Your task to perform on an android device: see creations saved in the google photos Image 0: 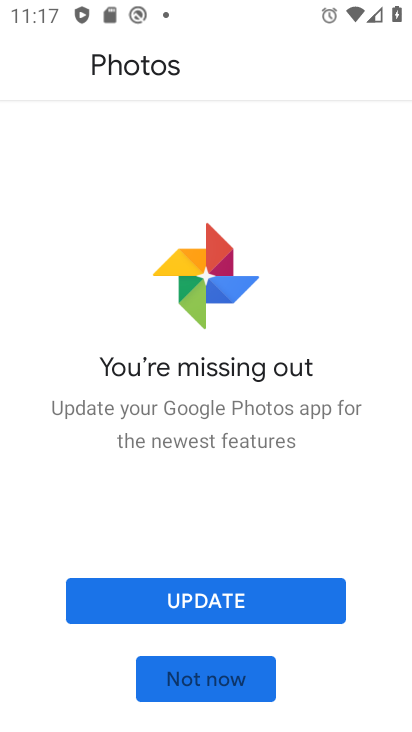
Step 0: press home button
Your task to perform on an android device: see creations saved in the google photos Image 1: 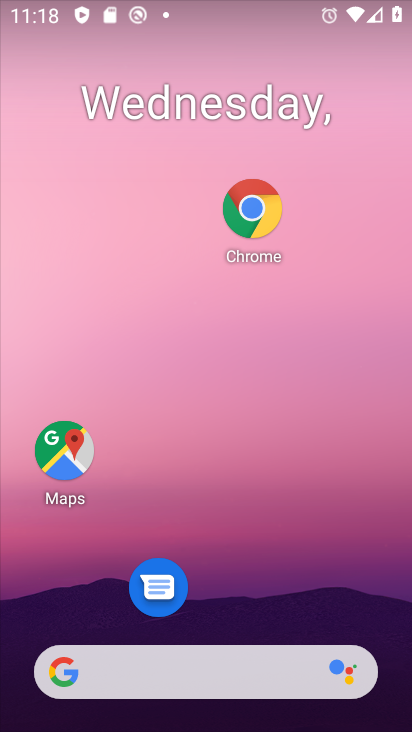
Step 1: drag from (246, 618) to (231, 207)
Your task to perform on an android device: see creations saved in the google photos Image 2: 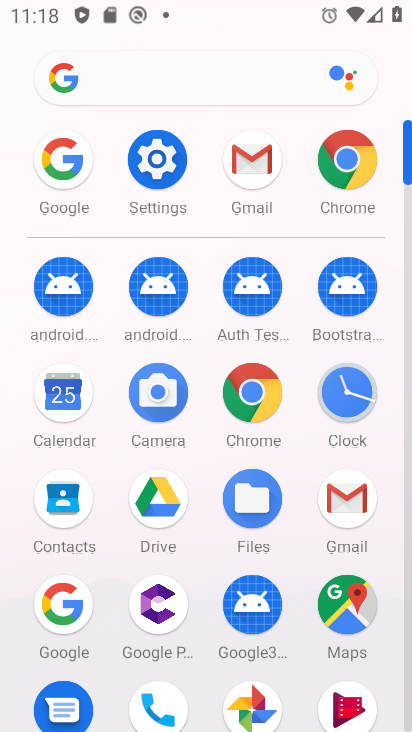
Step 2: click (251, 692)
Your task to perform on an android device: see creations saved in the google photos Image 3: 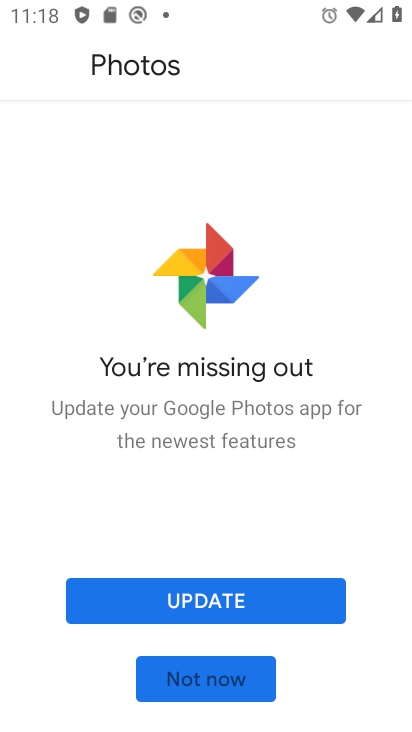
Step 3: click (202, 587)
Your task to perform on an android device: see creations saved in the google photos Image 4: 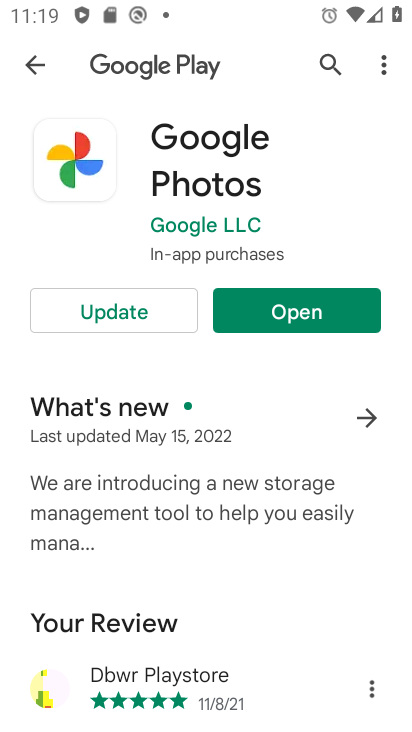
Step 4: click (127, 301)
Your task to perform on an android device: see creations saved in the google photos Image 5: 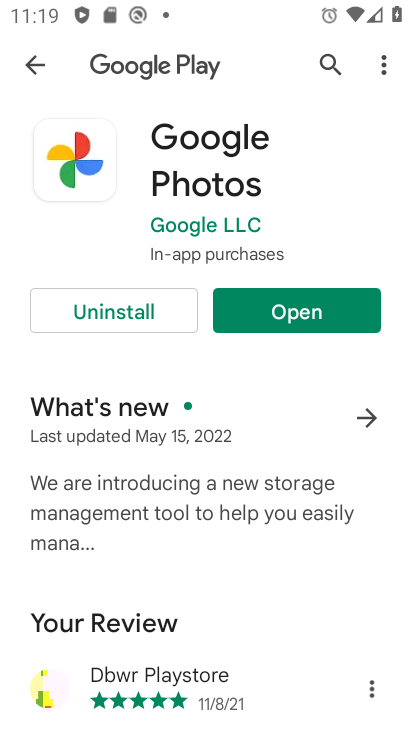
Step 5: click (232, 320)
Your task to perform on an android device: see creations saved in the google photos Image 6: 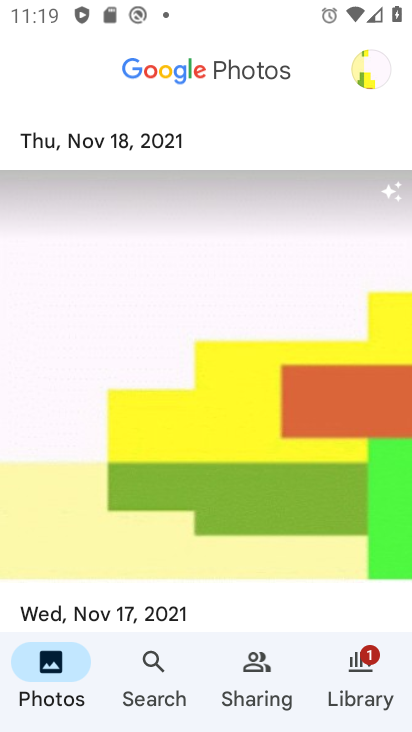
Step 6: click (155, 678)
Your task to perform on an android device: see creations saved in the google photos Image 7: 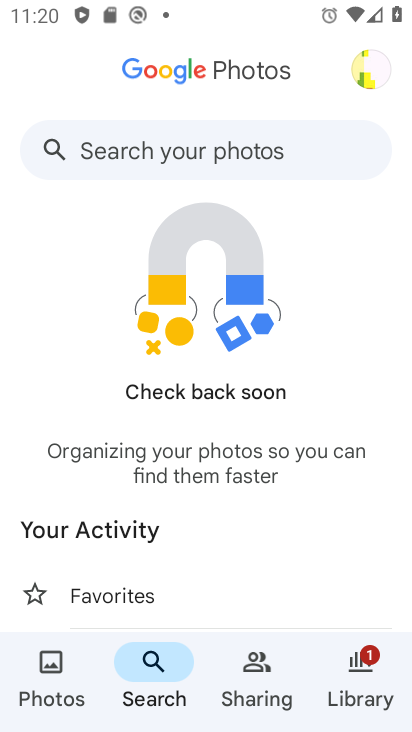
Step 7: click (190, 155)
Your task to perform on an android device: see creations saved in the google photos Image 8: 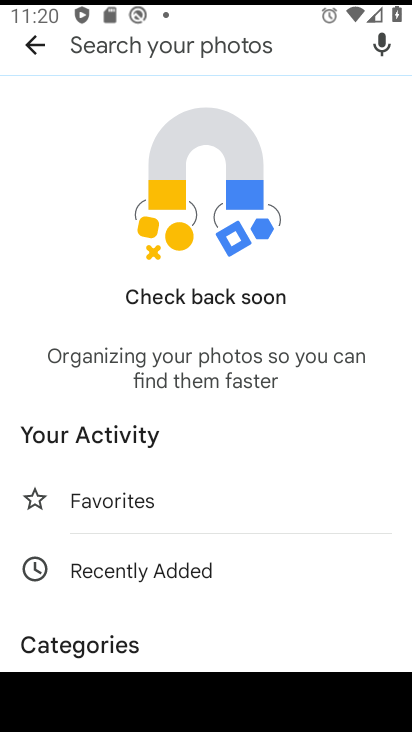
Step 8: drag from (149, 636) to (160, 362)
Your task to perform on an android device: see creations saved in the google photos Image 9: 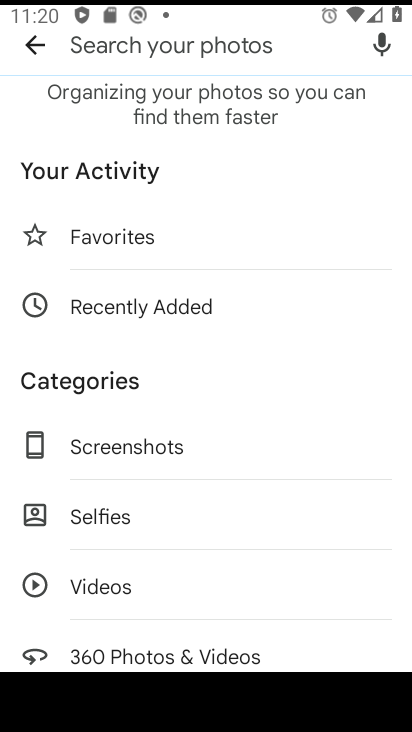
Step 9: drag from (219, 561) to (219, 387)
Your task to perform on an android device: see creations saved in the google photos Image 10: 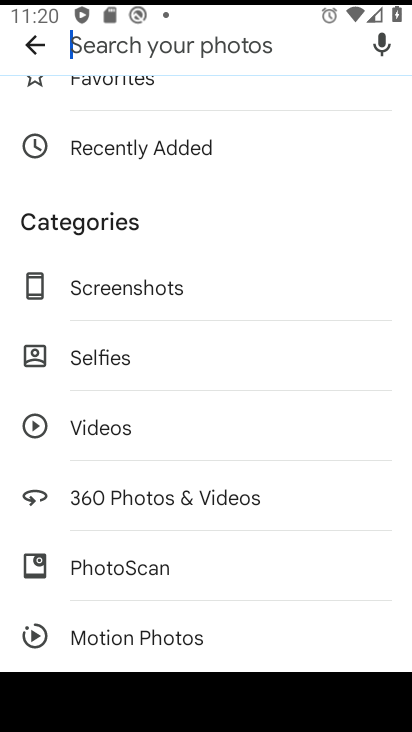
Step 10: drag from (175, 613) to (193, 366)
Your task to perform on an android device: see creations saved in the google photos Image 11: 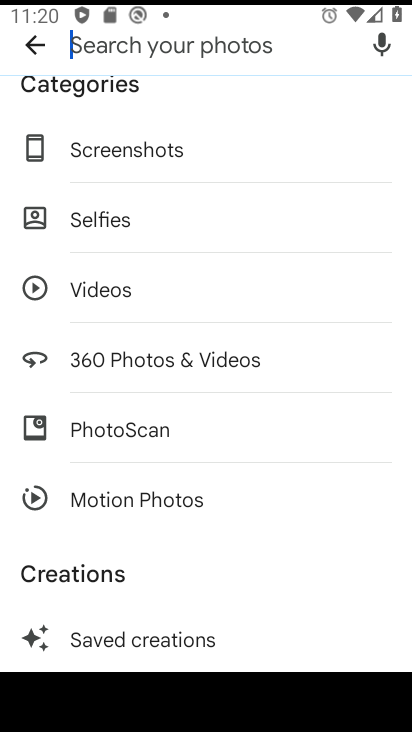
Step 11: click (155, 637)
Your task to perform on an android device: see creations saved in the google photos Image 12: 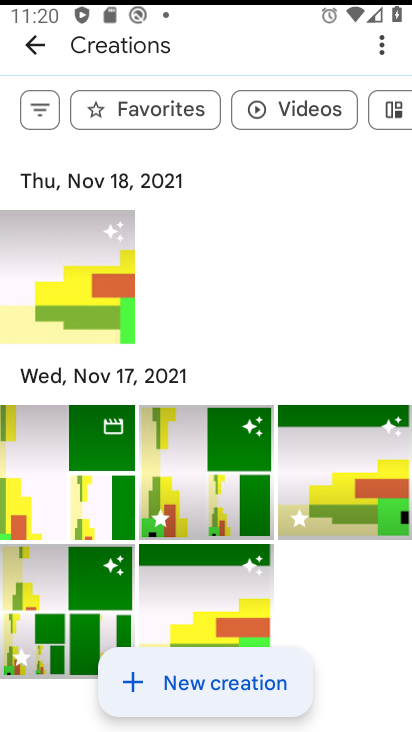
Step 12: task complete